Your task to perform on an android device: turn on location history Image 0: 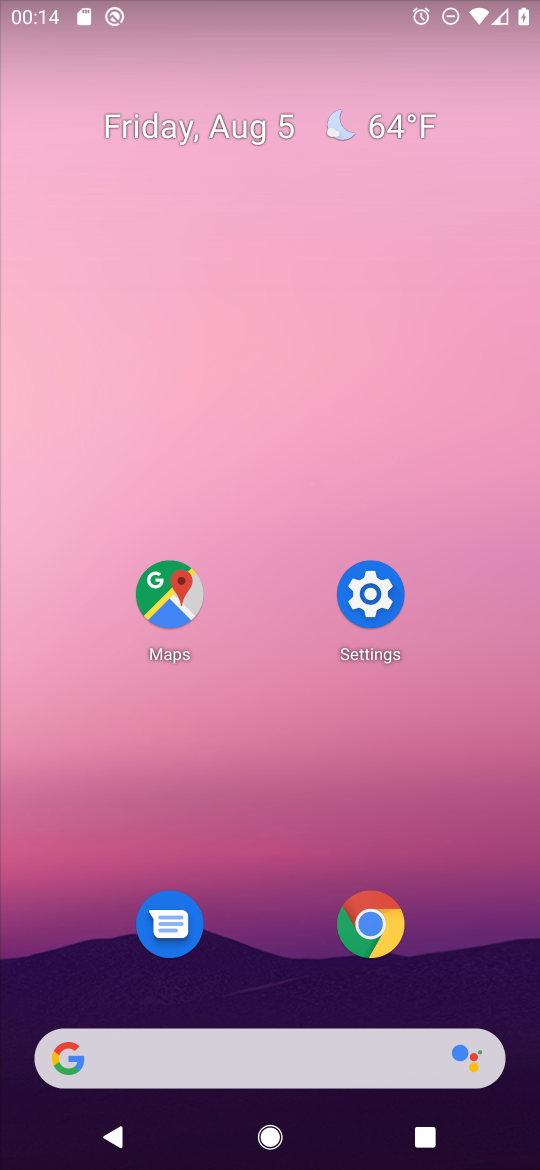
Step 0: click (174, 602)
Your task to perform on an android device: turn on location history Image 1: 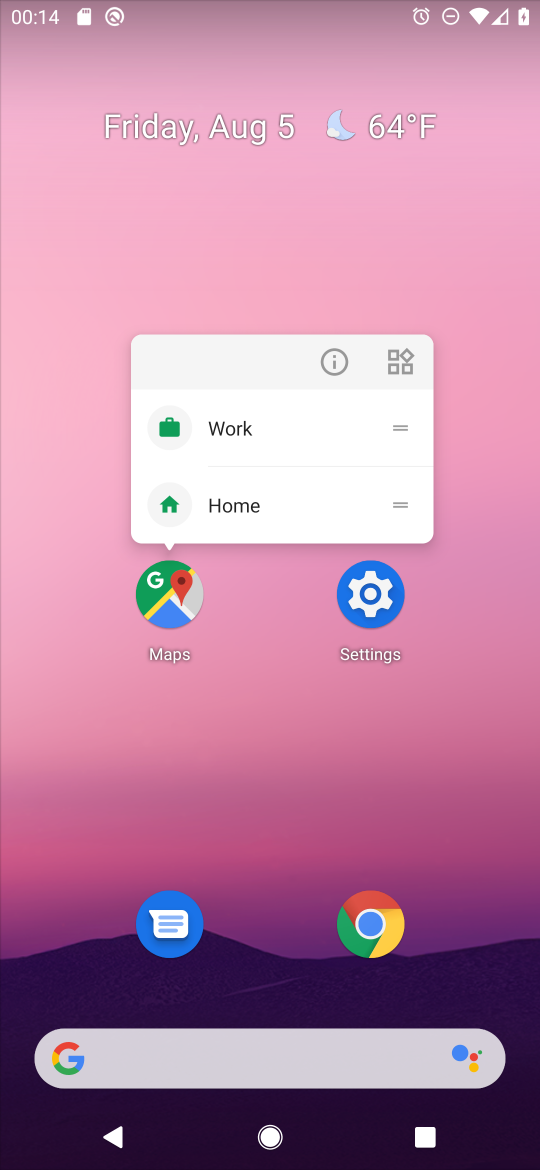
Step 1: click (173, 609)
Your task to perform on an android device: turn on location history Image 2: 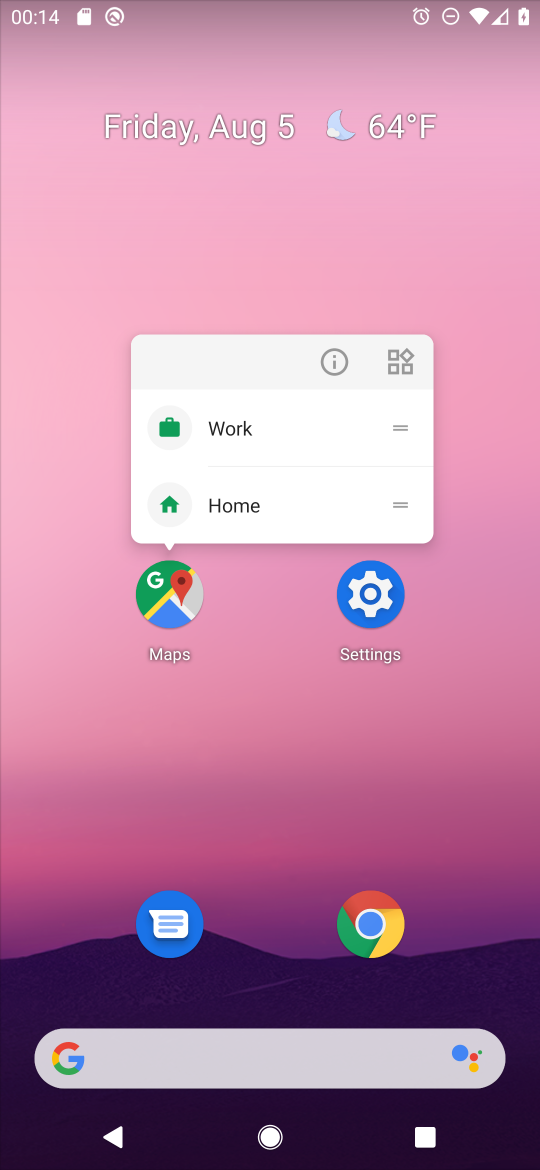
Step 2: click (168, 595)
Your task to perform on an android device: turn on location history Image 3: 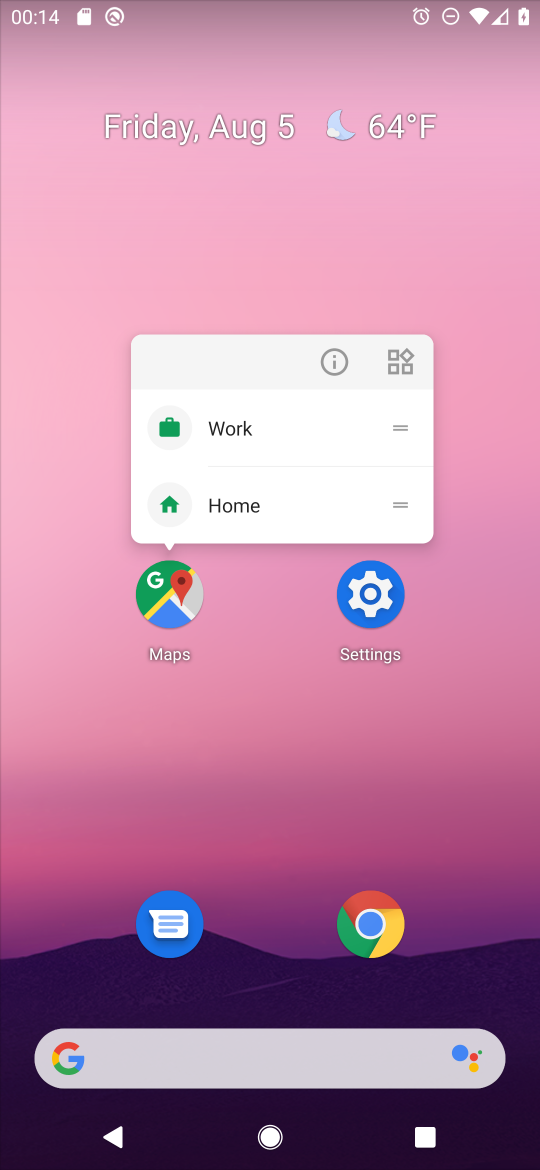
Step 3: click (168, 595)
Your task to perform on an android device: turn on location history Image 4: 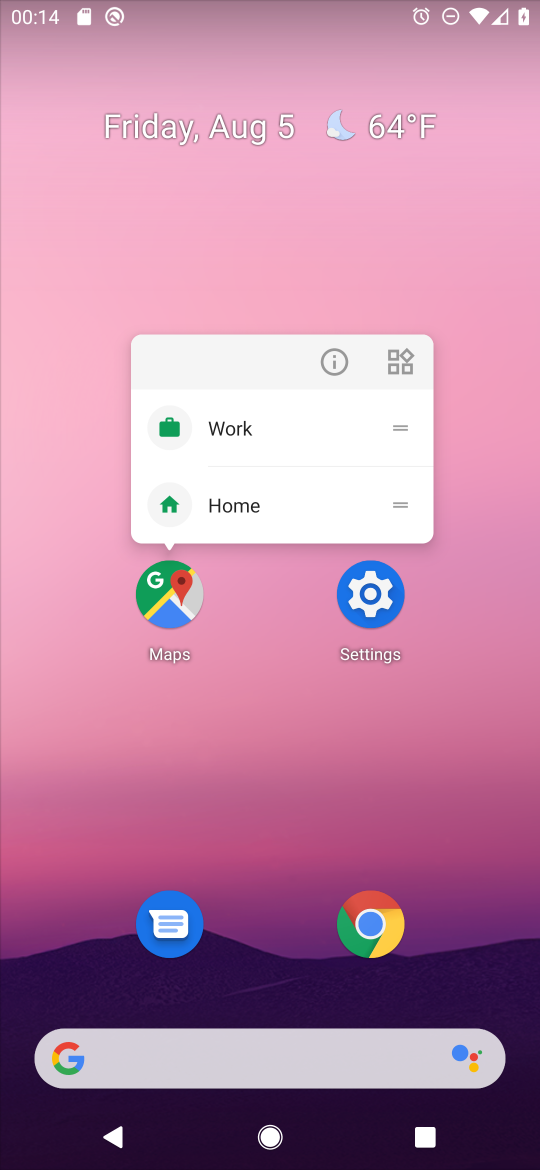
Step 4: click (168, 598)
Your task to perform on an android device: turn on location history Image 5: 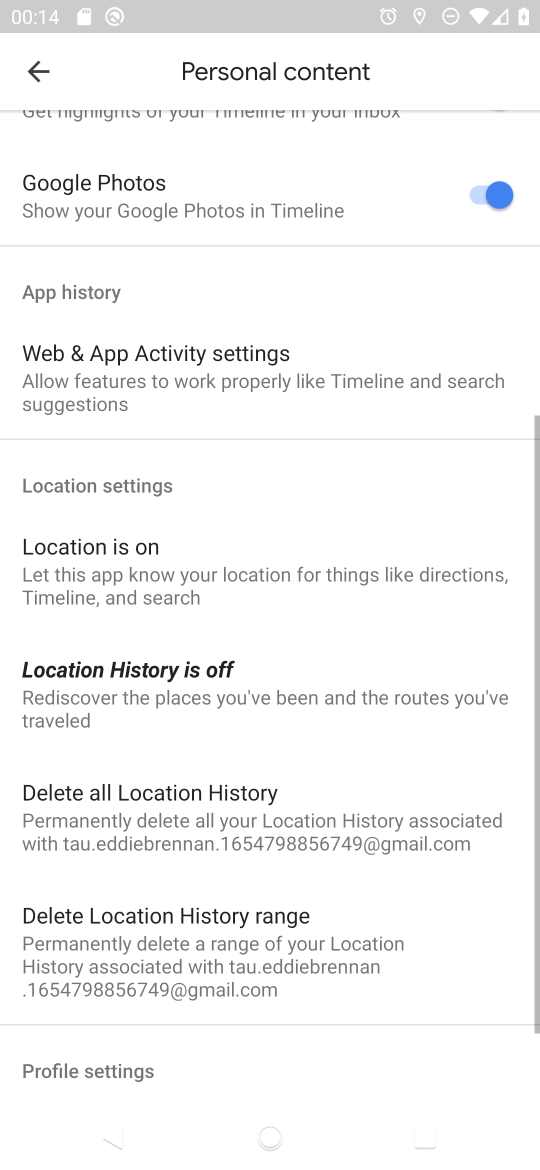
Step 5: click (214, 670)
Your task to perform on an android device: turn on location history Image 6: 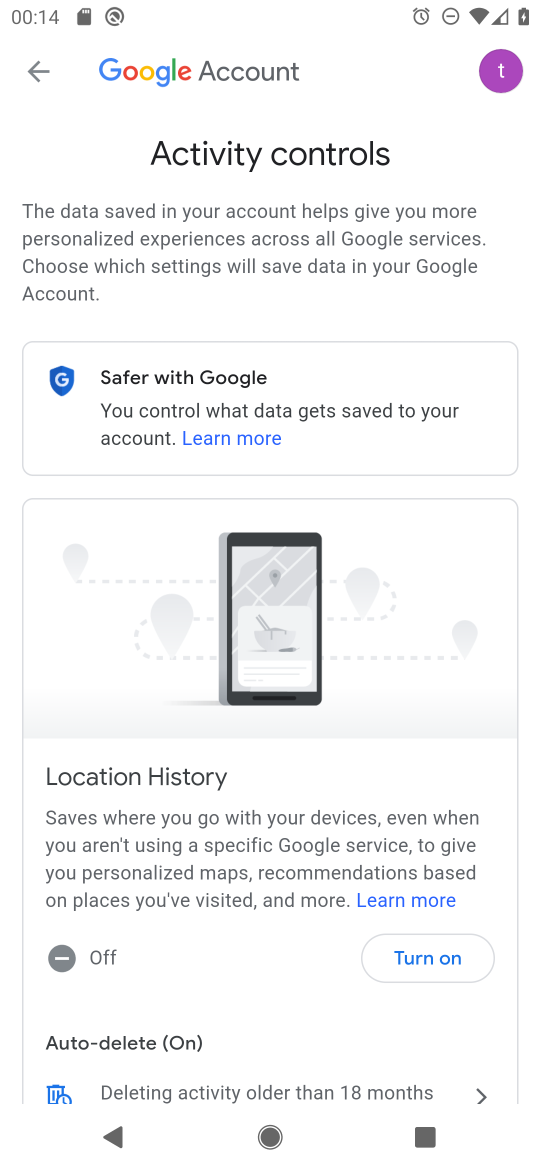
Step 6: drag from (285, 883) to (368, 373)
Your task to perform on an android device: turn on location history Image 7: 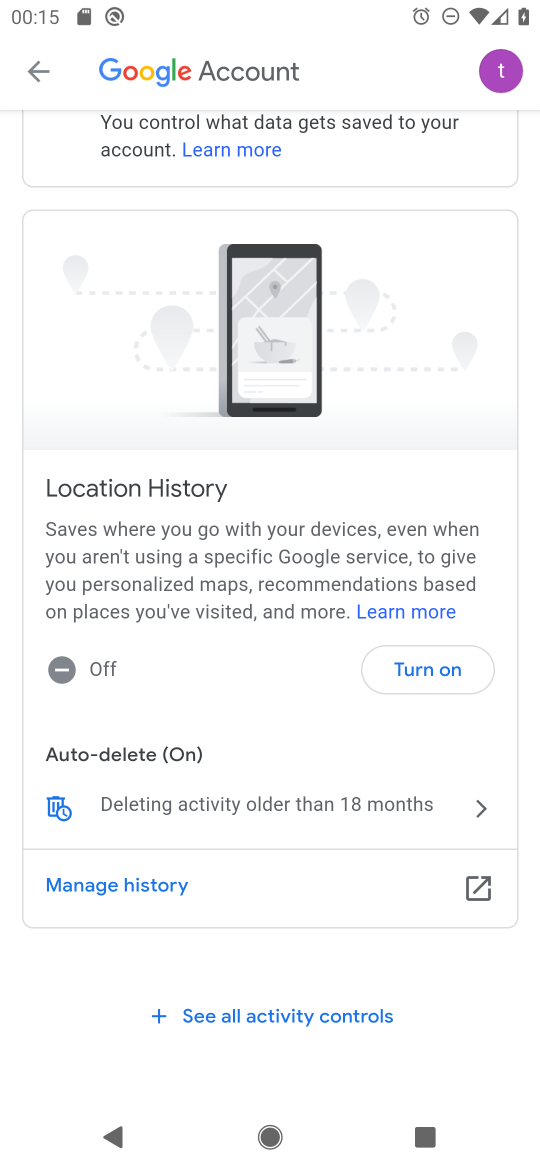
Step 7: click (431, 672)
Your task to perform on an android device: turn on location history Image 8: 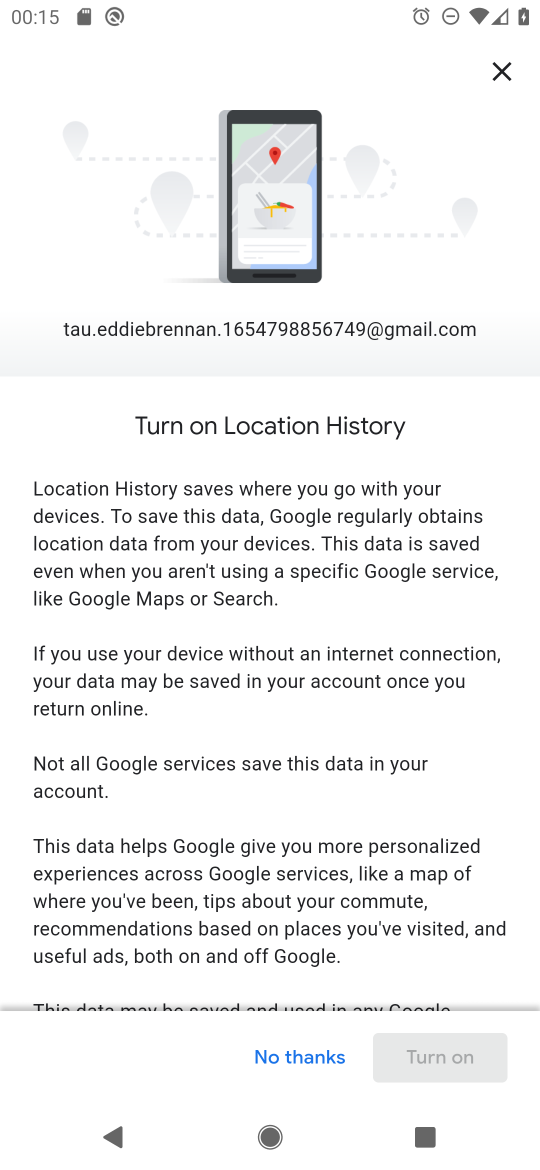
Step 8: drag from (302, 820) to (388, 120)
Your task to perform on an android device: turn on location history Image 9: 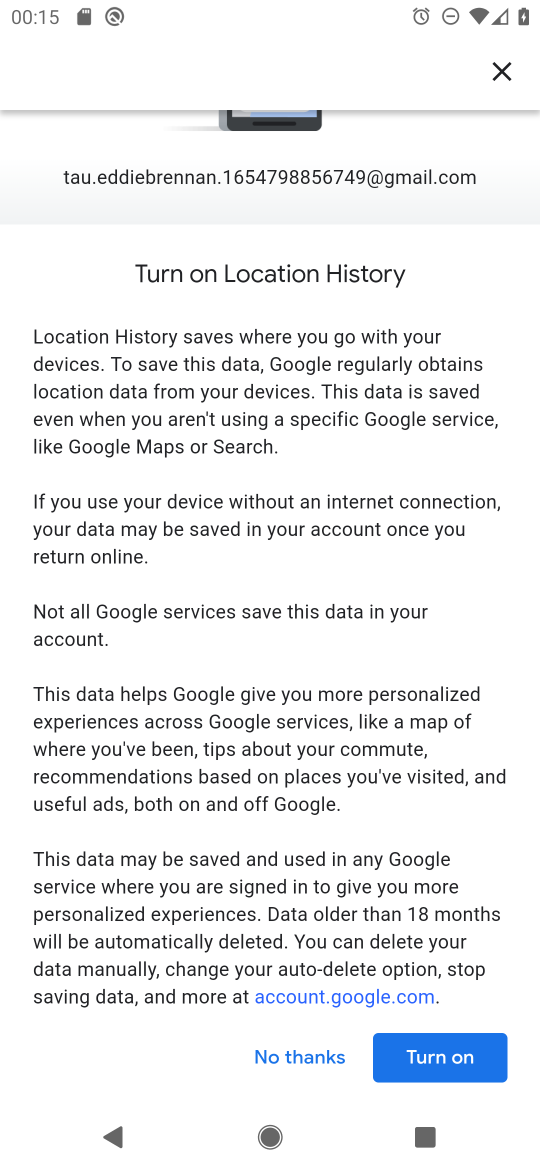
Step 9: click (431, 1062)
Your task to perform on an android device: turn on location history Image 10: 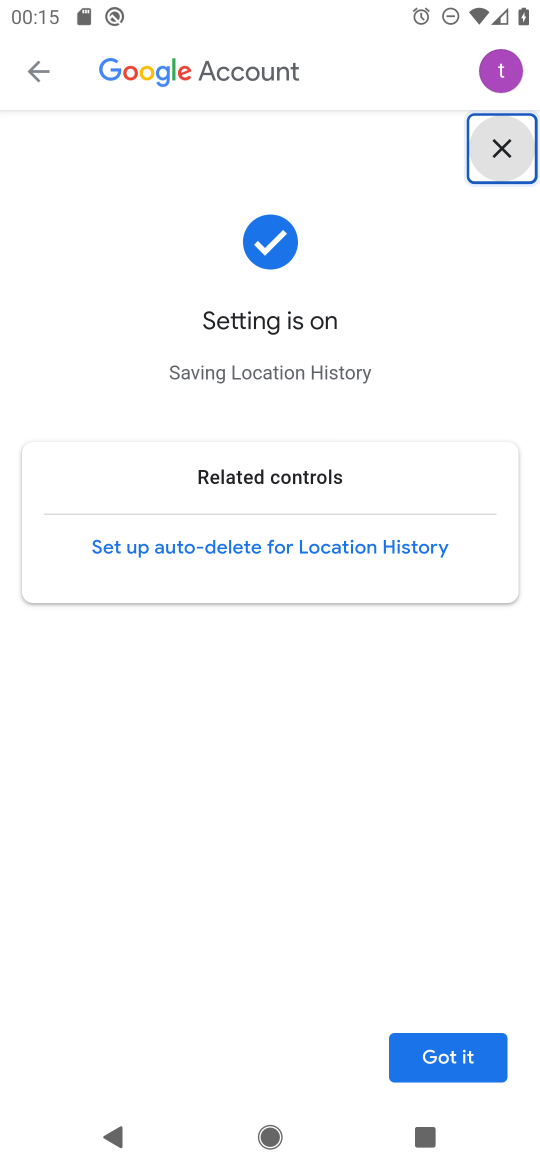
Step 10: click (432, 1060)
Your task to perform on an android device: turn on location history Image 11: 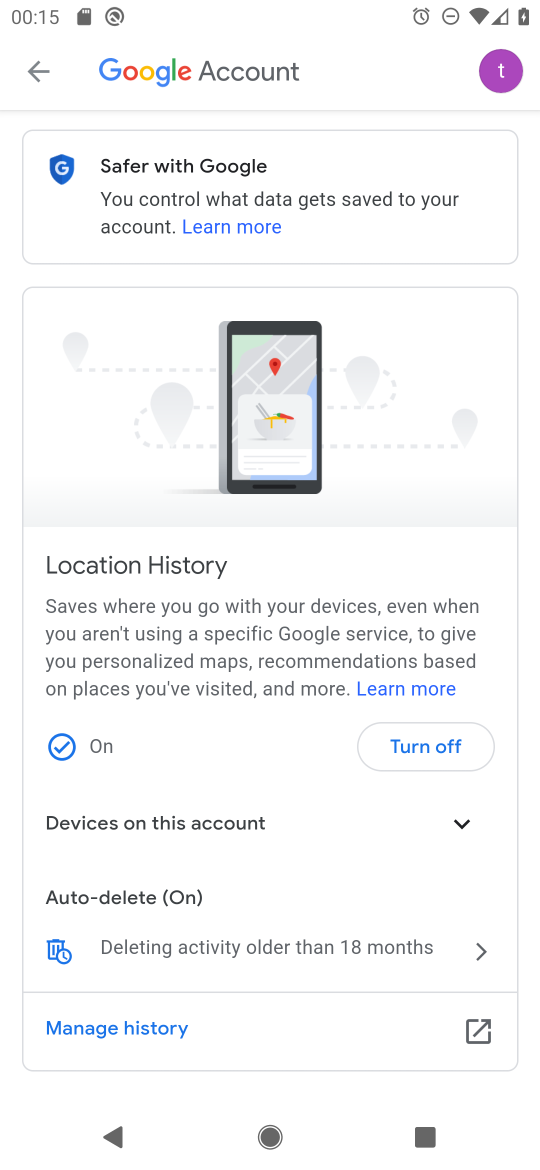
Step 11: task complete